Your task to perform on an android device: Open the calendar and show me this week's events? Image 0: 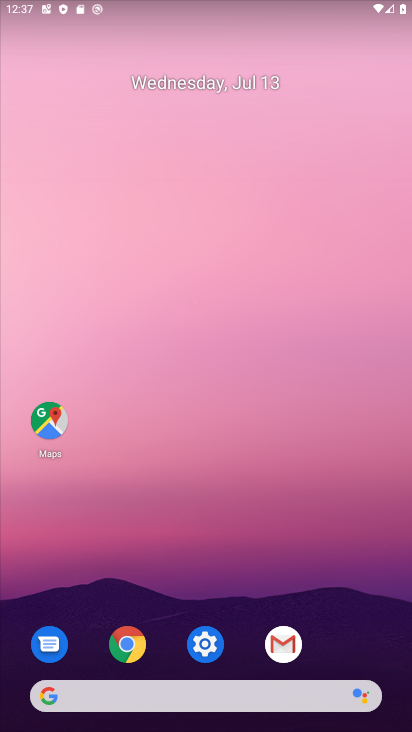
Step 0: drag from (267, 601) to (221, 131)
Your task to perform on an android device: Open the calendar and show me this week's events? Image 1: 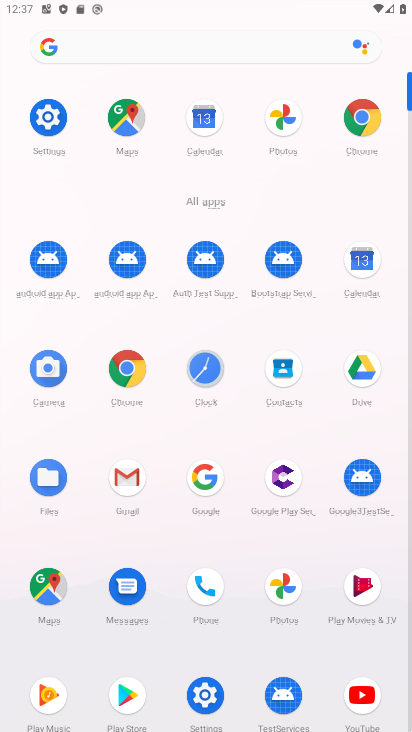
Step 1: click (355, 273)
Your task to perform on an android device: Open the calendar and show me this week's events? Image 2: 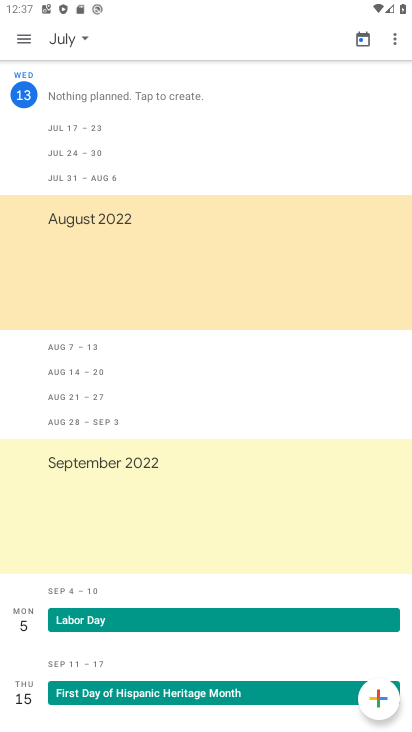
Step 2: click (28, 40)
Your task to perform on an android device: Open the calendar and show me this week's events? Image 3: 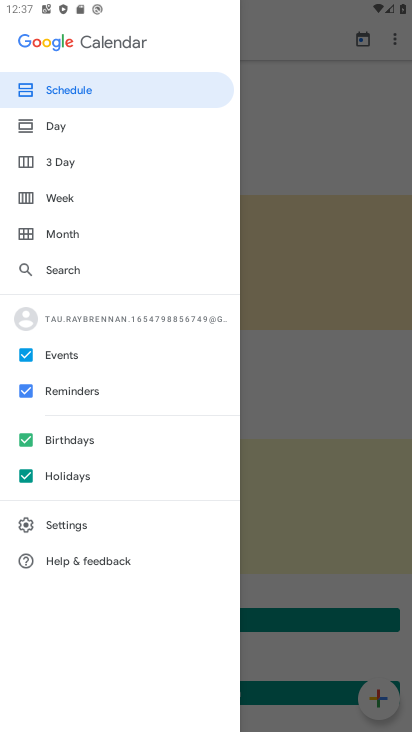
Step 3: click (80, 204)
Your task to perform on an android device: Open the calendar and show me this week's events? Image 4: 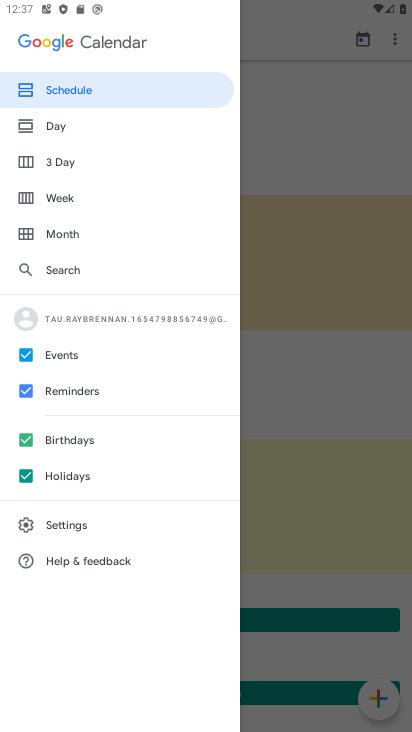
Step 4: click (65, 197)
Your task to perform on an android device: Open the calendar and show me this week's events? Image 5: 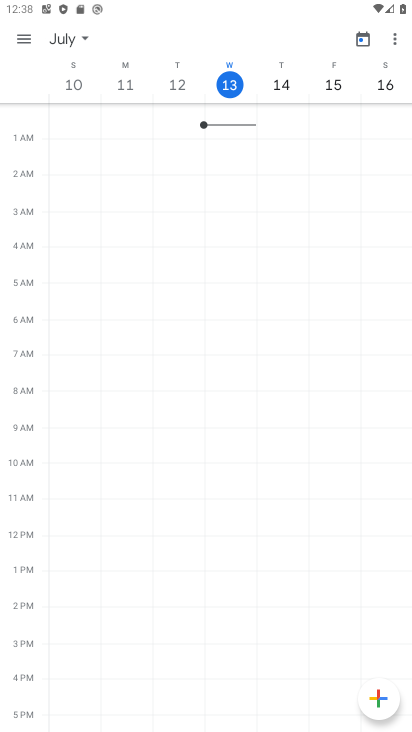
Step 5: task complete